Your task to perform on an android device: Go to wifi settings Image 0: 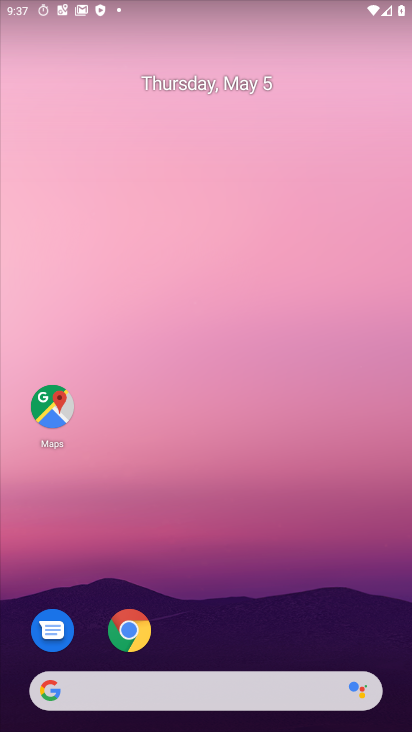
Step 0: drag from (172, 394) to (146, 117)
Your task to perform on an android device: Go to wifi settings Image 1: 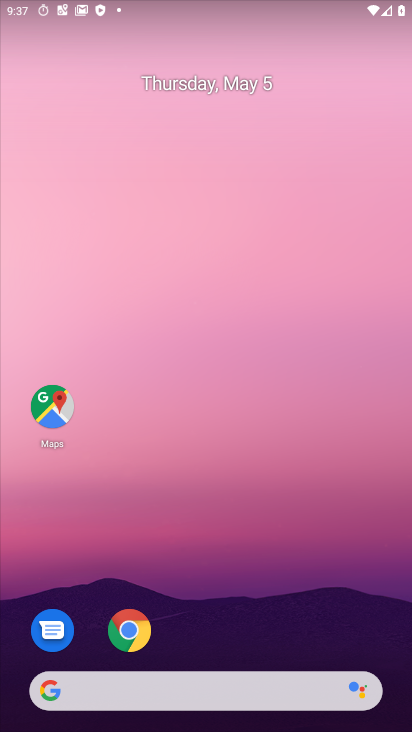
Step 1: drag from (339, 597) to (132, 44)
Your task to perform on an android device: Go to wifi settings Image 2: 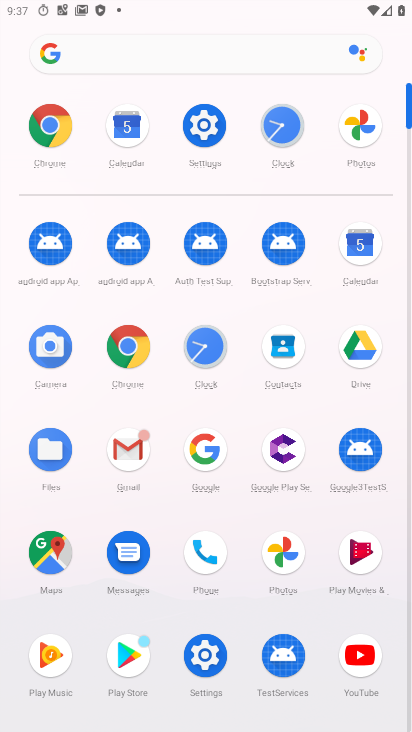
Step 2: click (223, 133)
Your task to perform on an android device: Go to wifi settings Image 3: 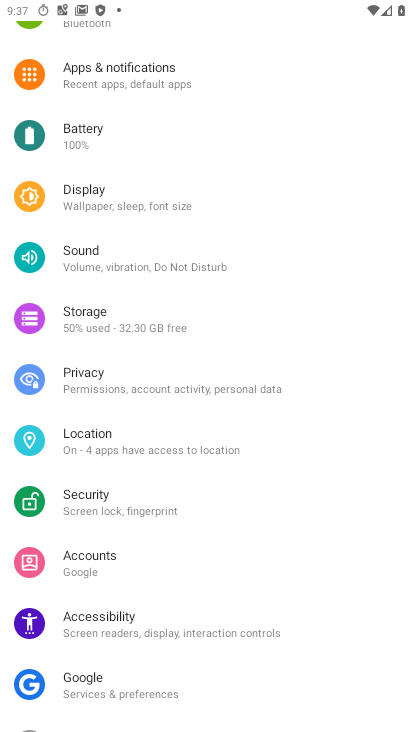
Step 3: drag from (169, 75) to (137, 350)
Your task to perform on an android device: Go to wifi settings Image 4: 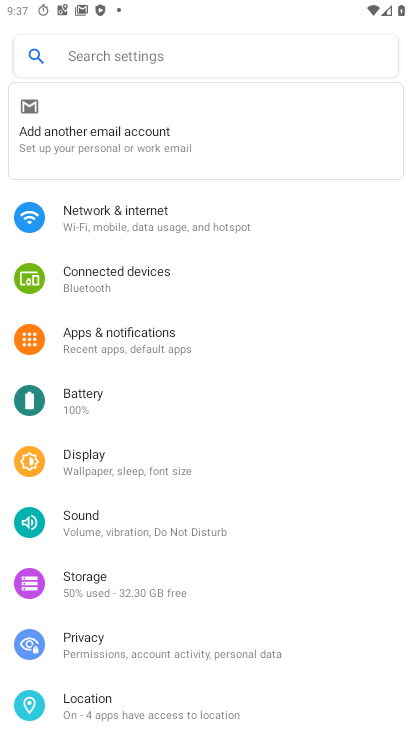
Step 4: click (89, 215)
Your task to perform on an android device: Go to wifi settings Image 5: 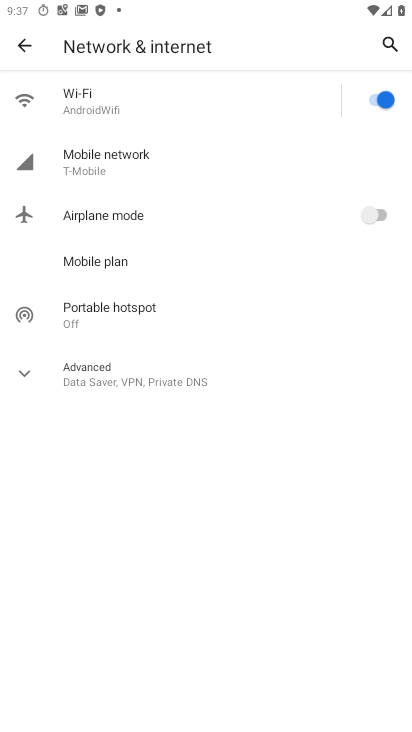
Step 5: click (130, 106)
Your task to perform on an android device: Go to wifi settings Image 6: 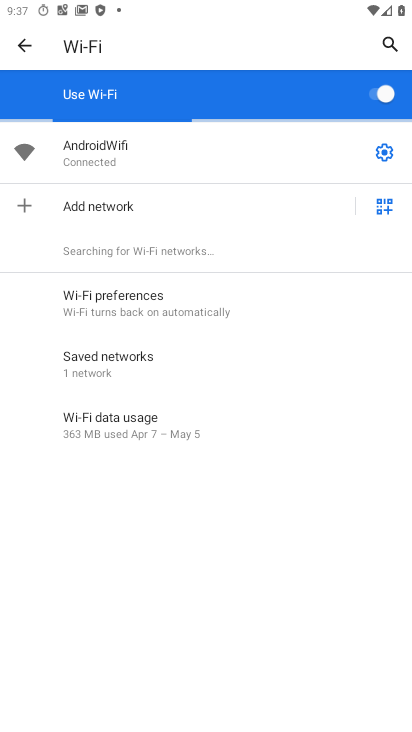
Step 6: task complete